Your task to perform on an android device: Check the settings for the Amazon Shopping app Image 0: 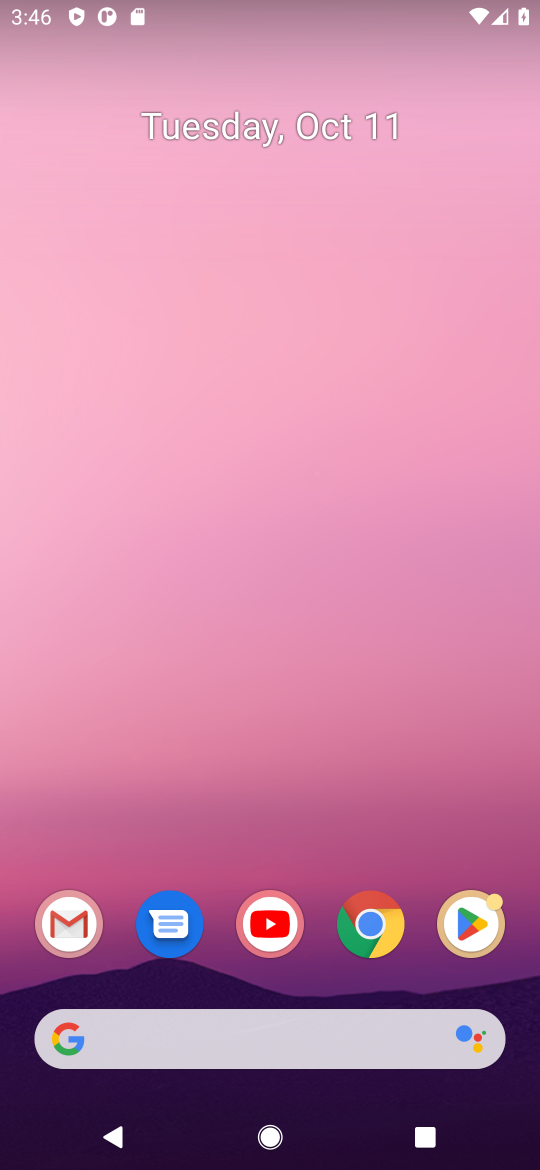
Step 0: drag from (290, 389) to (296, 163)
Your task to perform on an android device: Check the settings for the Amazon Shopping app Image 1: 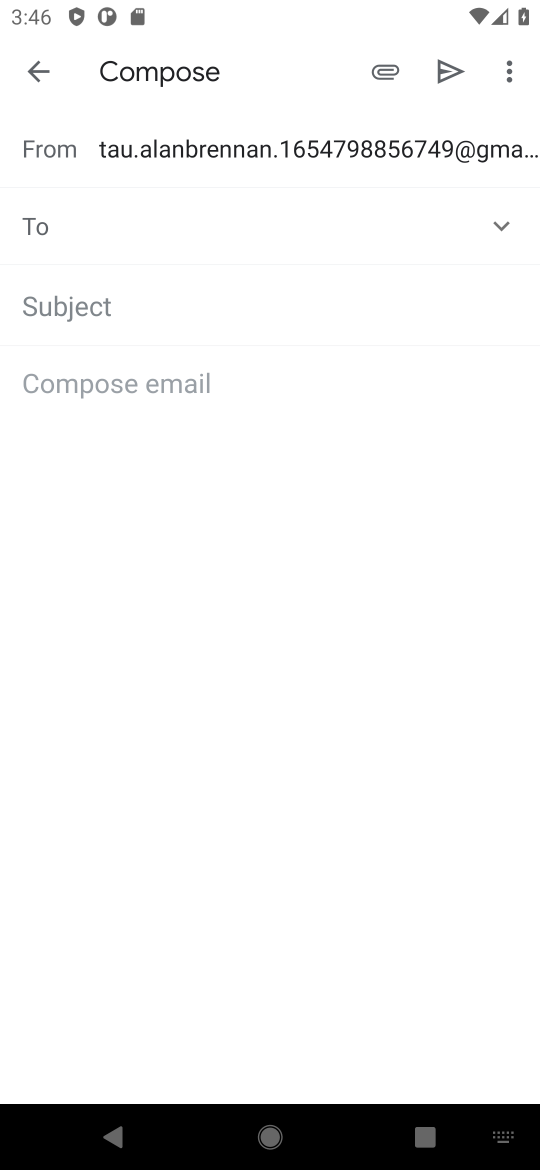
Step 1: task complete